Your task to perform on an android device: Go to internet settings Image 0: 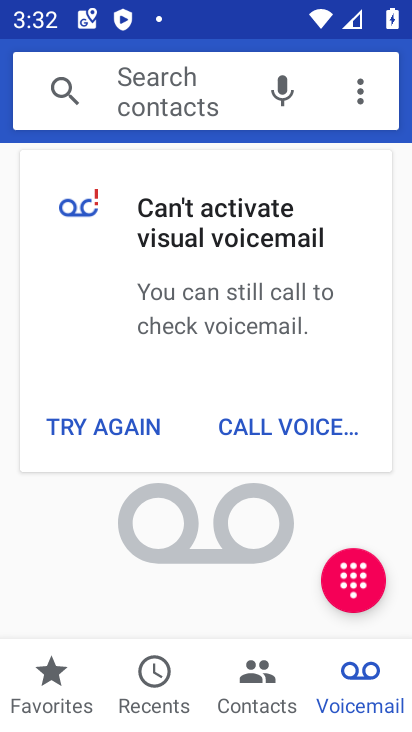
Step 0: press home button
Your task to perform on an android device: Go to internet settings Image 1: 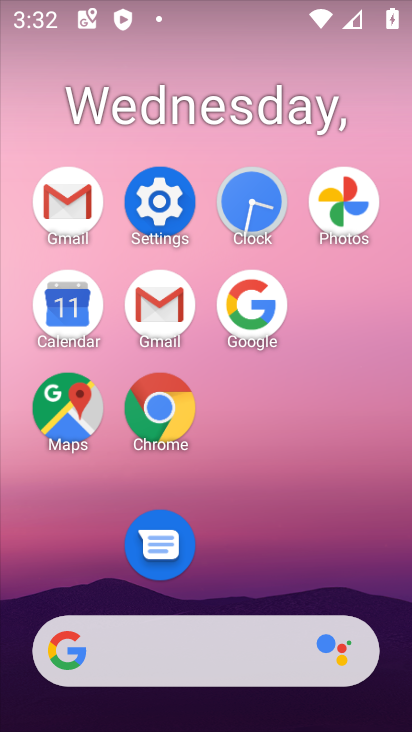
Step 1: click (151, 198)
Your task to perform on an android device: Go to internet settings Image 2: 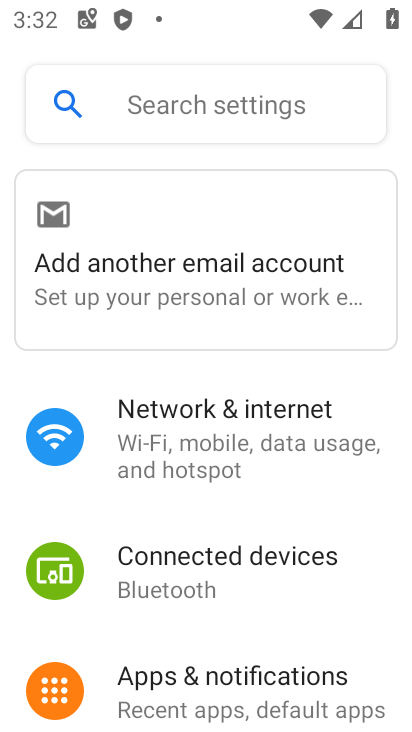
Step 2: click (242, 411)
Your task to perform on an android device: Go to internet settings Image 3: 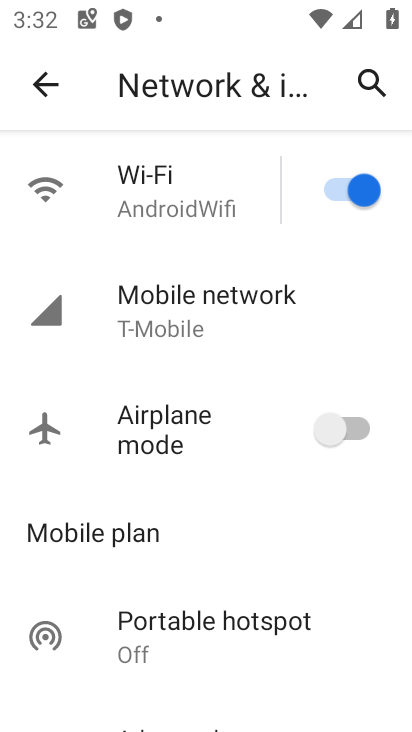
Step 3: click (260, 311)
Your task to perform on an android device: Go to internet settings Image 4: 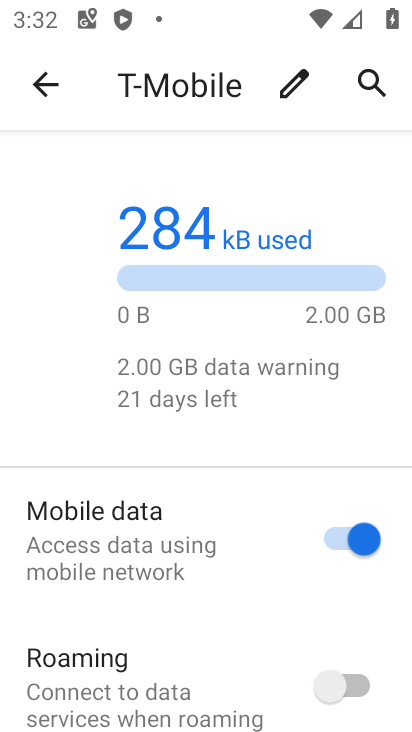
Step 4: task complete